Your task to perform on an android device: toggle notifications settings in the gmail app Image 0: 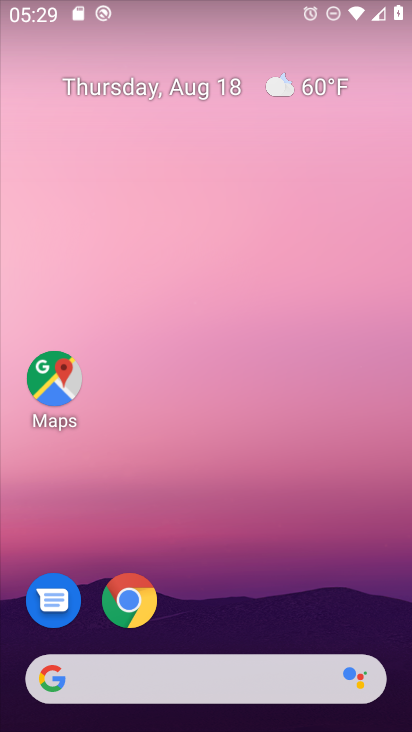
Step 0: press home button
Your task to perform on an android device: toggle notifications settings in the gmail app Image 1: 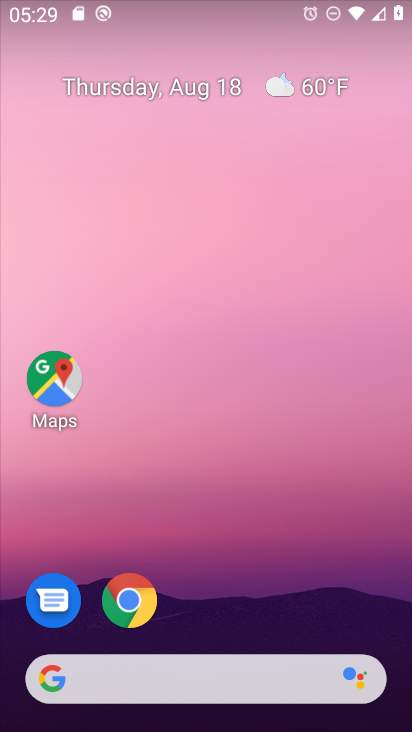
Step 1: drag from (245, 637) to (238, 53)
Your task to perform on an android device: toggle notifications settings in the gmail app Image 2: 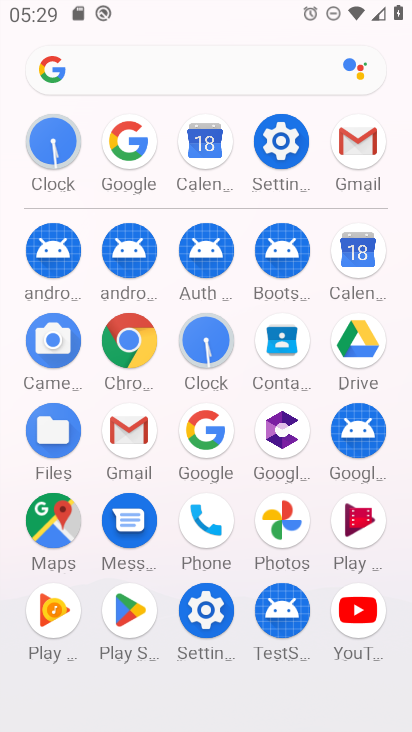
Step 2: click (356, 148)
Your task to perform on an android device: toggle notifications settings in the gmail app Image 3: 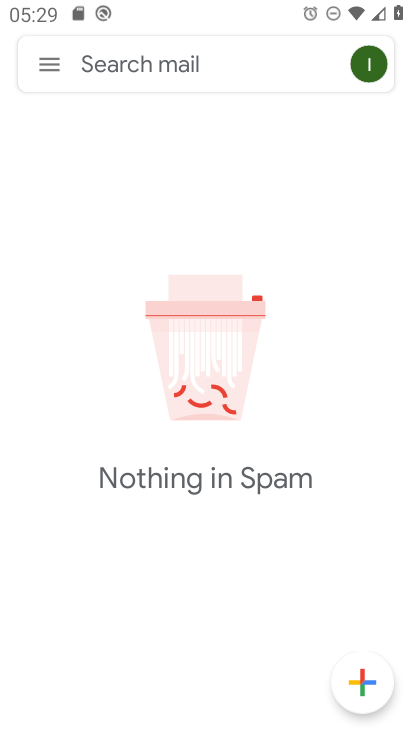
Step 3: click (50, 66)
Your task to perform on an android device: toggle notifications settings in the gmail app Image 4: 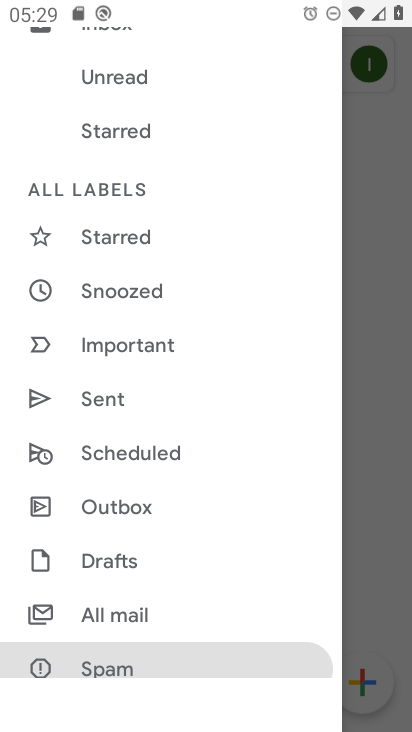
Step 4: drag from (220, 611) to (219, 103)
Your task to perform on an android device: toggle notifications settings in the gmail app Image 5: 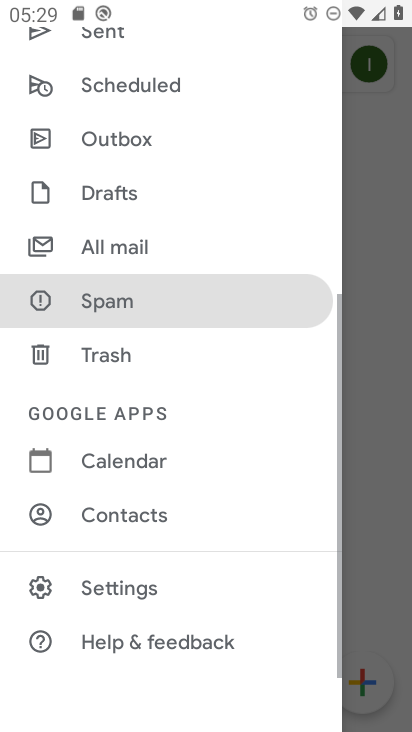
Step 5: click (110, 600)
Your task to perform on an android device: toggle notifications settings in the gmail app Image 6: 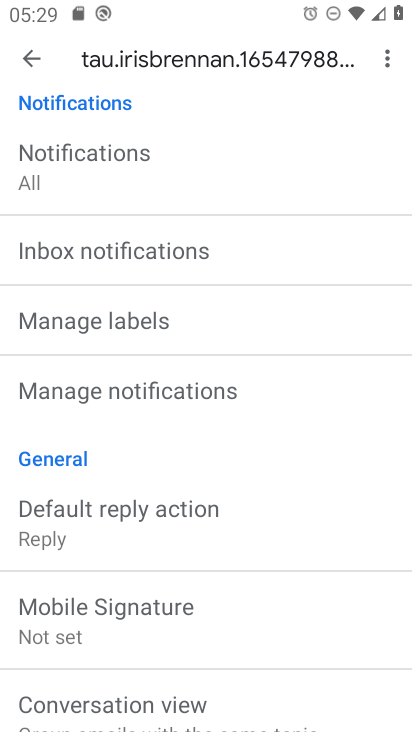
Step 6: click (126, 378)
Your task to perform on an android device: toggle notifications settings in the gmail app Image 7: 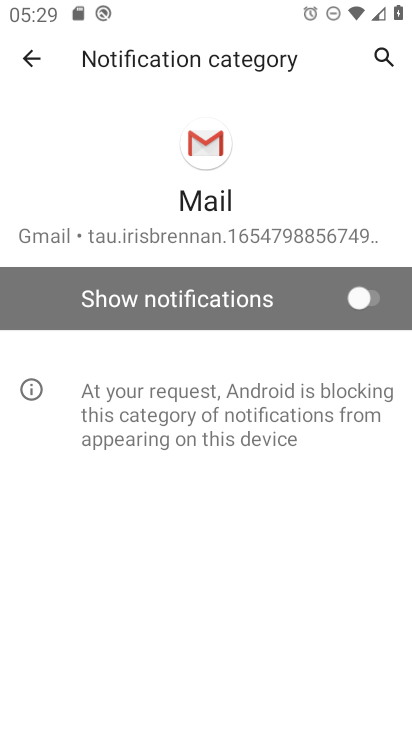
Step 7: click (354, 302)
Your task to perform on an android device: toggle notifications settings in the gmail app Image 8: 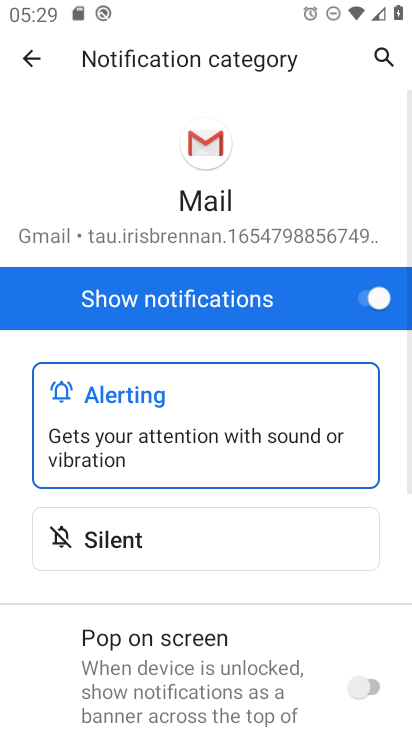
Step 8: task complete